Your task to perform on an android device: change text size in settings app Image 0: 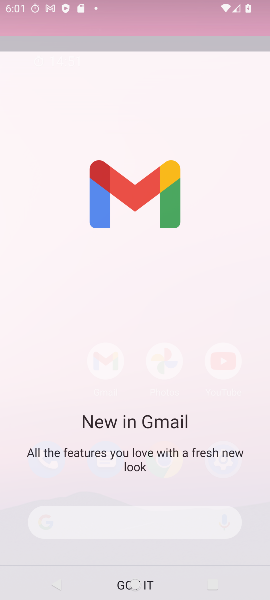
Step 0: press home button
Your task to perform on an android device: change text size in settings app Image 1: 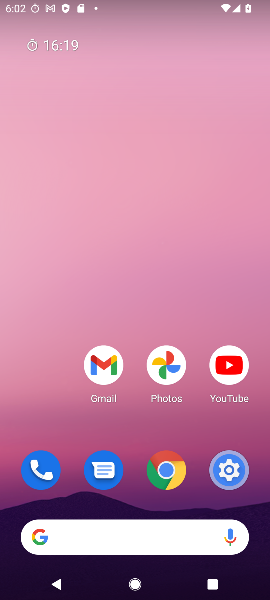
Step 1: click (216, 474)
Your task to perform on an android device: change text size in settings app Image 2: 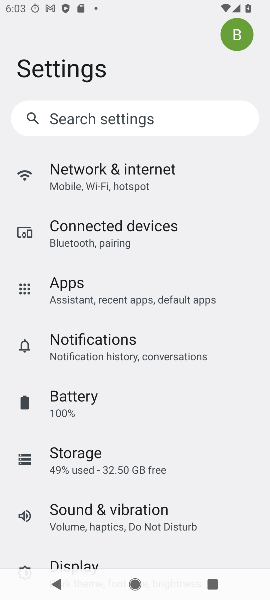
Step 2: drag from (113, 451) to (122, 298)
Your task to perform on an android device: change text size in settings app Image 3: 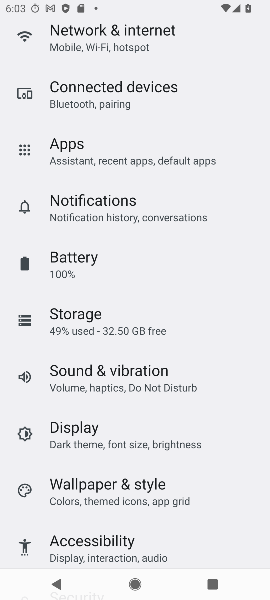
Step 3: click (161, 442)
Your task to perform on an android device: change text size in settings app Image 4: 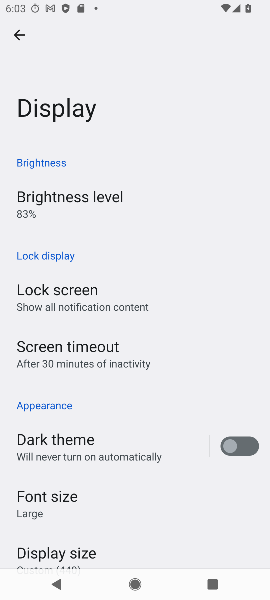
Step 4: click (48, 516)
Your task to perform on an android device: change text size in settings app Image 5: 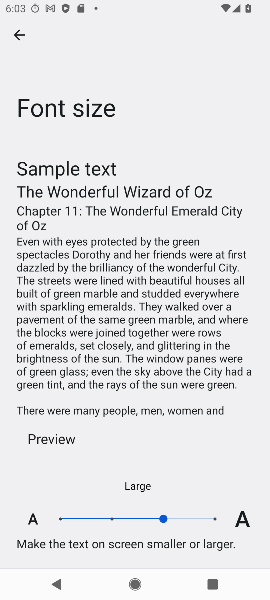
Step 5: click (245, 521)
Your task to perform on an android device: change text size in settings app Image 6: 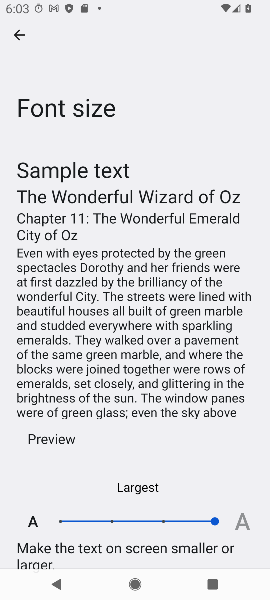
Step 6: task complete